Your task to perform on an android device: Open wifi settings Image 0: 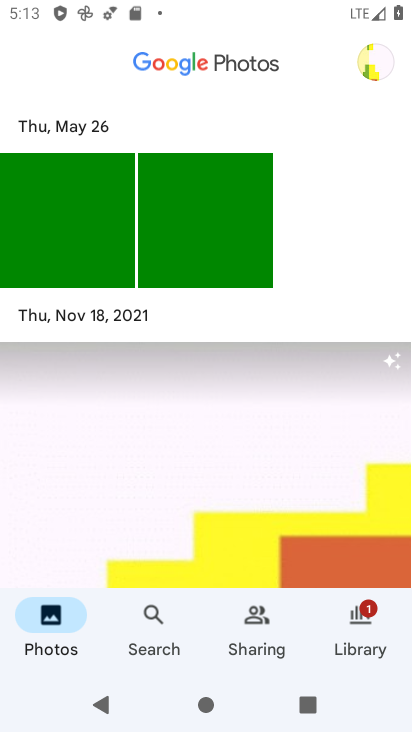
Step 0: press back button
Your task to perform on an android device: Open wifi settings Image 1: 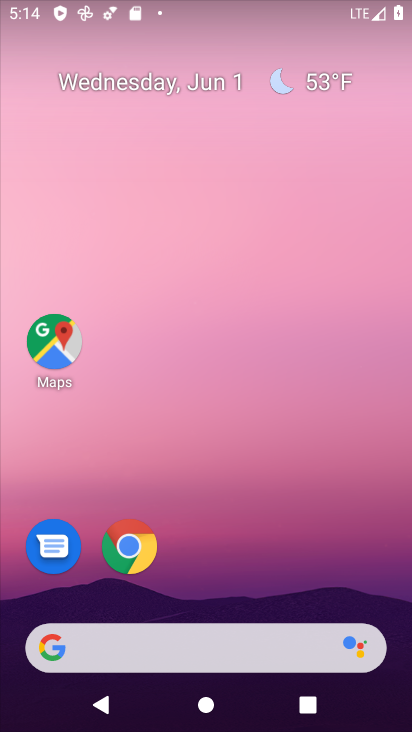
Step 1: drag from (314, 480) to (241, 0)
Your task to perform on an android device: Open wifi settings Image 2: 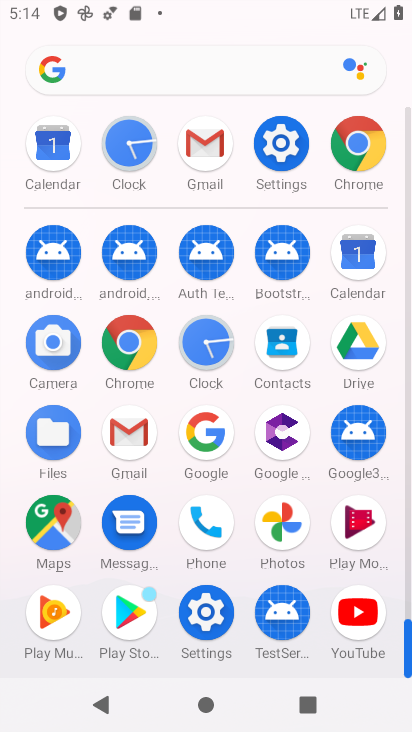
Step 2: drag from (8, 531) to (17, 203)
Your task to perform on an android device: Open wifi settings Image 3: 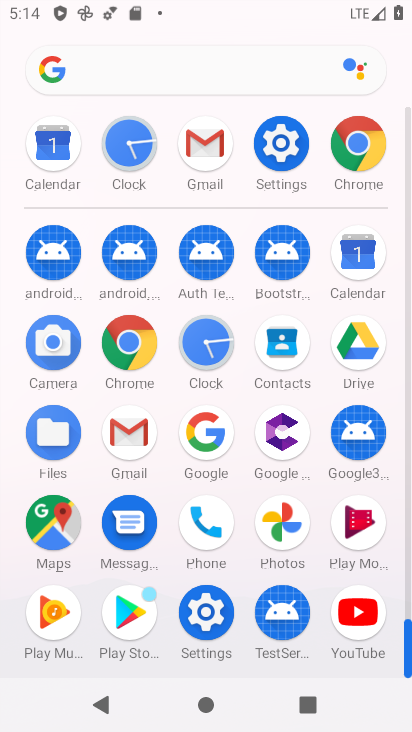
Step 3: click (202, 605)
Your task to perform on an android device: Open wifi settings Image 4: 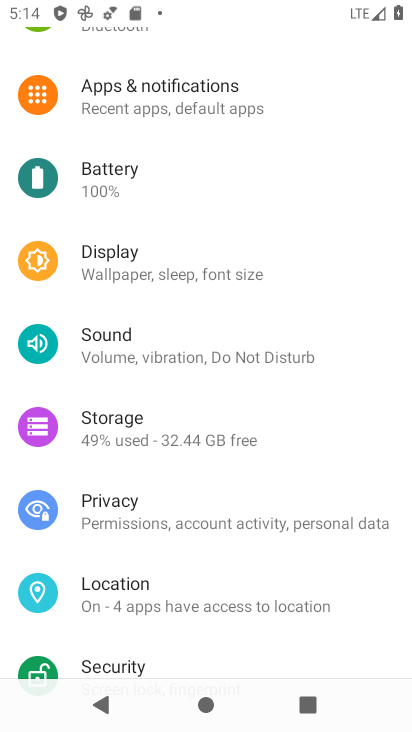
Step 4: drag from (253, 478) to (282, 194)
Your task to perform on an android device: Open wifi settings Image 5: 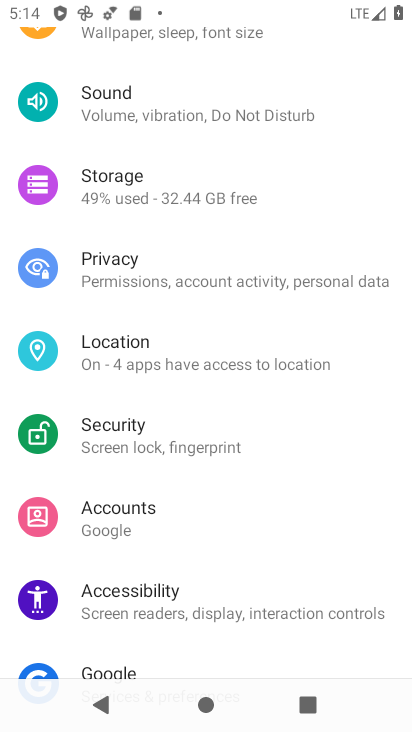
Step 5: drag from (277, 173) to (279, 599)
Your task to perform on an android device: Open wifi settings Image 6: 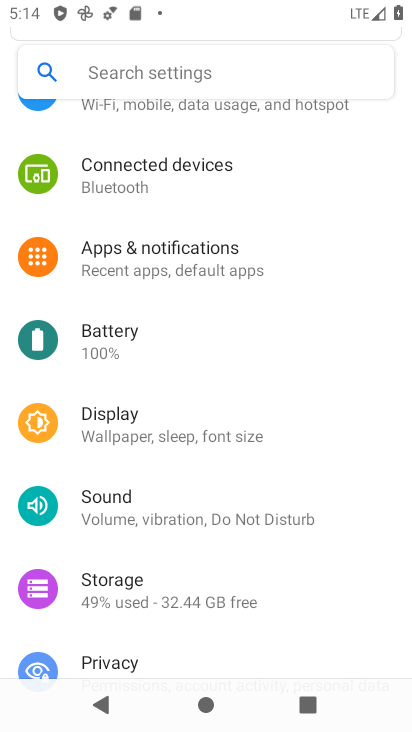
Step 6: drag from (256, 191) to (255, 646)
Your task to perform on an android device: Open wifi settings Image 7: 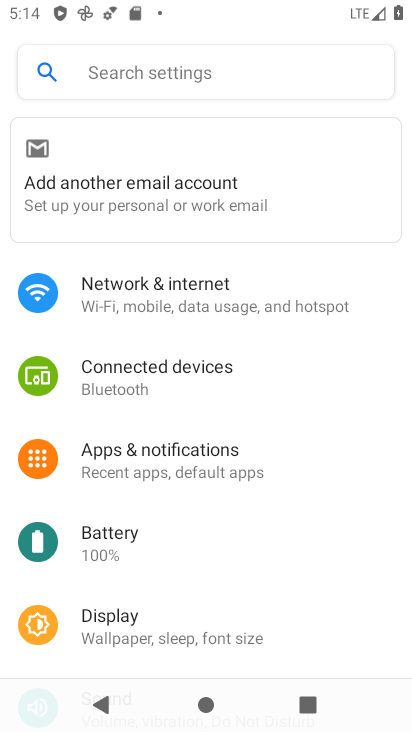
Step 7: click (220, 283)
Your task to perform on an android device: Open wifi settings Image 8: 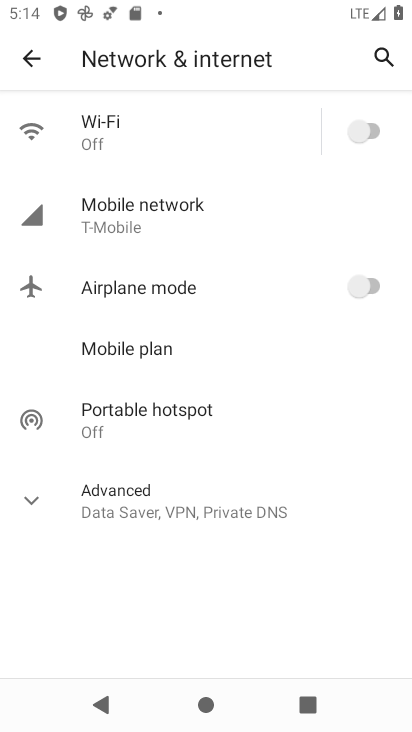
Step 8: click (45, 502)
Your task to perform on an android device: Open wifi settings Image 9: 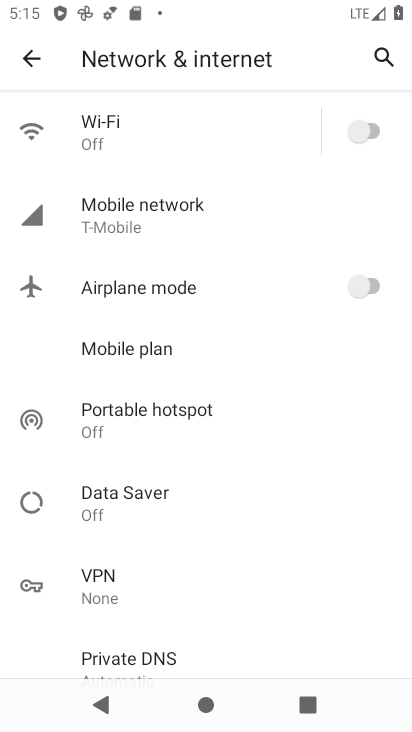
Step 9: drag from (227, 593) to (219, 204)
Your task to perform on an android device: Open wifi settings Image 10: 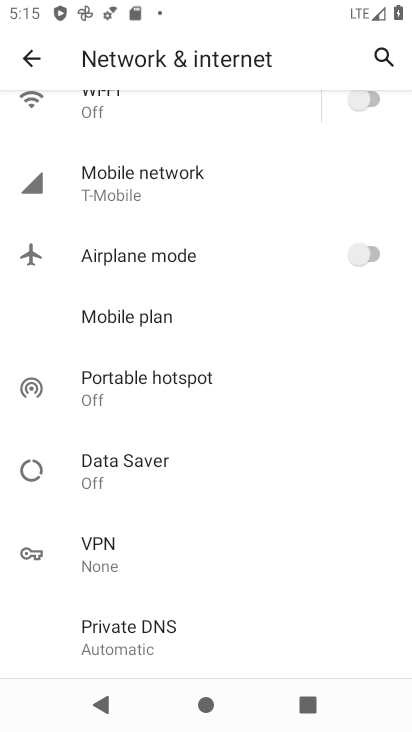
Step 10: drag from (258, 164) to (285, 489)
Your task to perform on an android device: Open wifi settings Image 11: 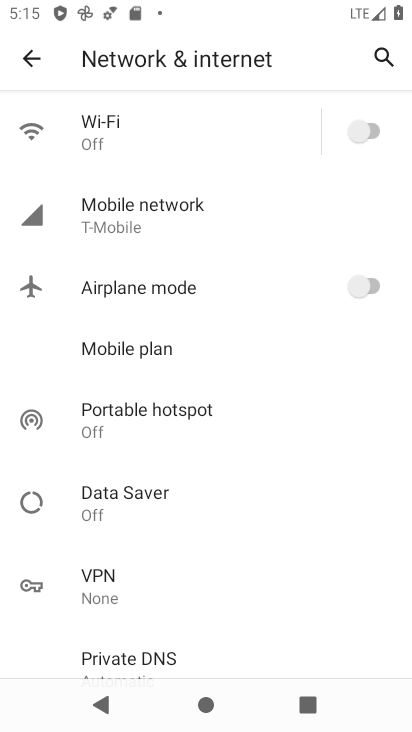
Step 11: drag from (206, 220) to (216, 333)
Your task to perform on an android device: Open wifi settings Image 12: 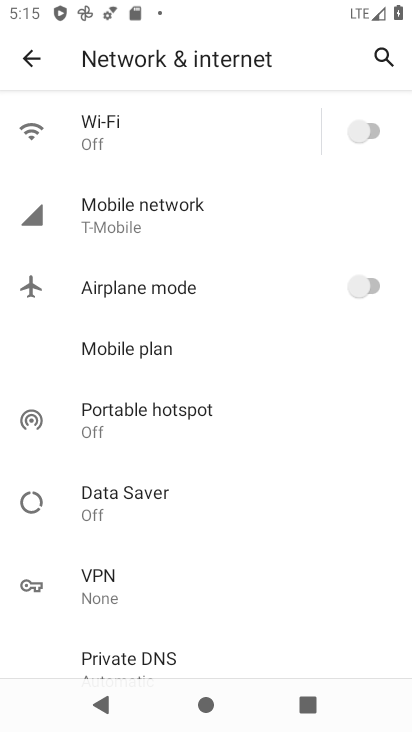
Step 12: click (163, 127)
Your task to perform on an android device: Open wifi settings Image 13: 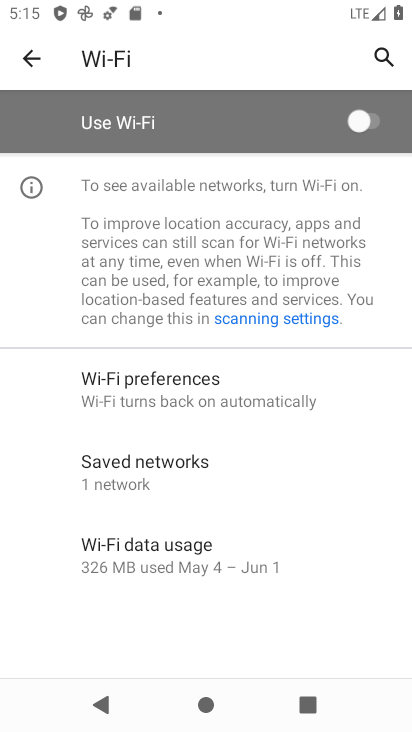
Step 13: task complete